Your task to perform on an android device: Show me the alarms in the clock app Image 0: 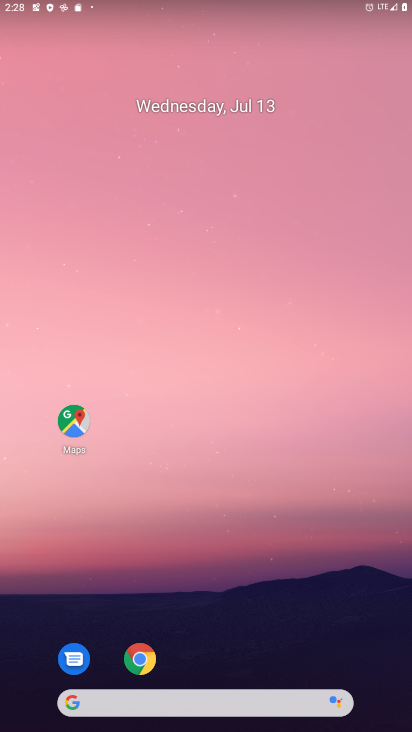
Step 0: drag from (208, 634) to (204, 538)
Your task to perform on an android device: Show me the alarms in the clock app Image 1: 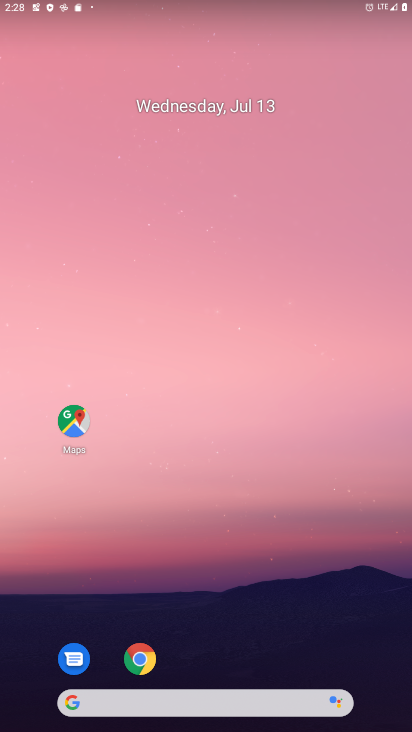
Step 1: click (200, 156)
Your task to perform on an android device: Show me the alarms in the clock app Image 2: 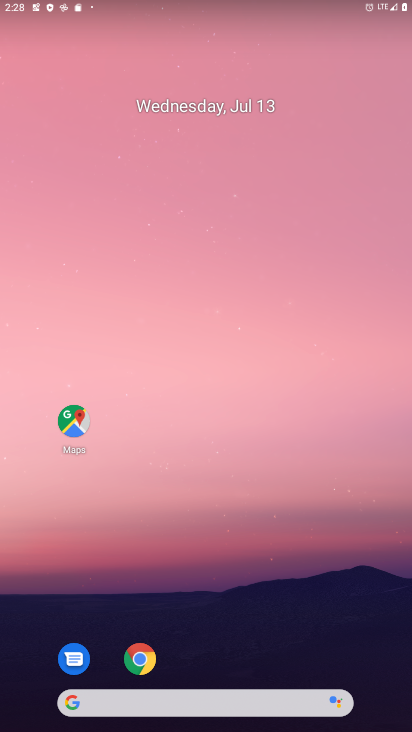
Step 2: drag from (235, 729) to (233, 150)
Your task to perform on an android device: Show me the alarms in the clock app Image 3: 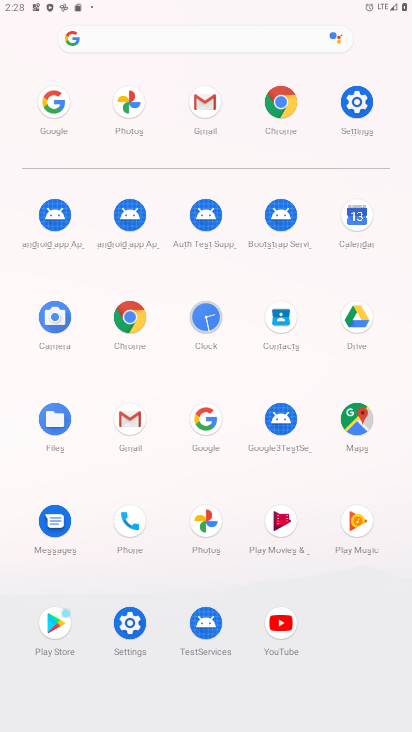
Step 3: click (206, 315)
Your task to perform on an android device: Show me the alarms in the clock app Image 4: 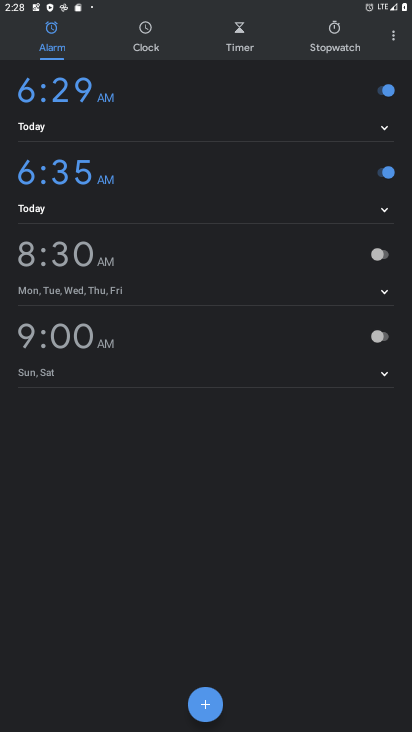
Step 4: task complete